Your task to perform on an android device: Toggle the flashlight Image 0: 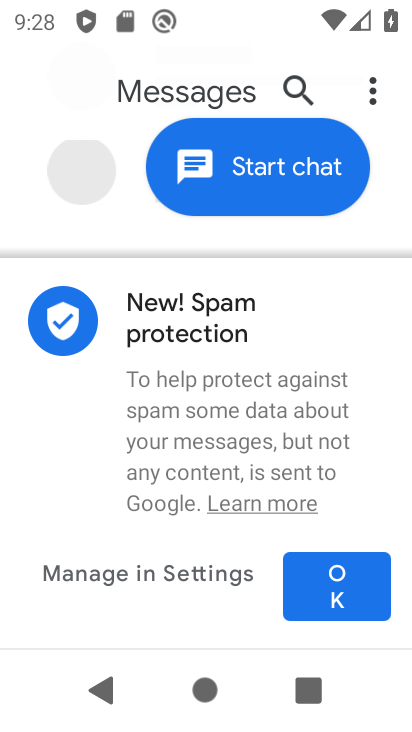
Step 0: press home button
Your task to perform on an android device: Toggle the flashlight Image 1: 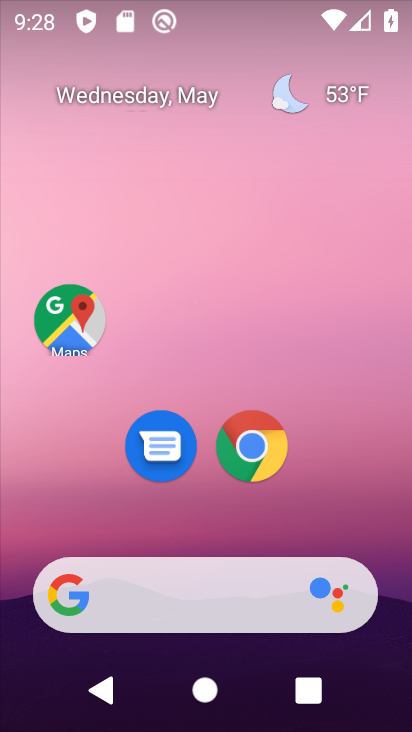
Step 1: drag from (351, 13) to (280, 471)
Your task to perform on an android device: Toggle the flashlight Image 2: 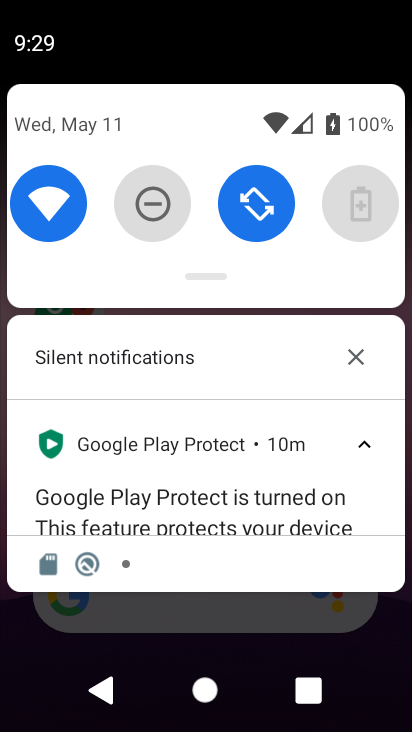
Step 2: drag from (296, 272) to (271, 714)
Your task to perform on an android device: Toggle the flashlight Image 3: 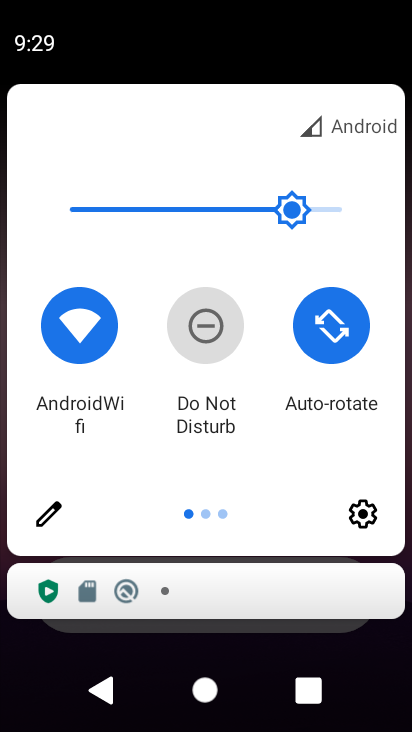
Step 3: click (44, 512)
Your task to perform on an android device: Toggle the flashlight Image 4: 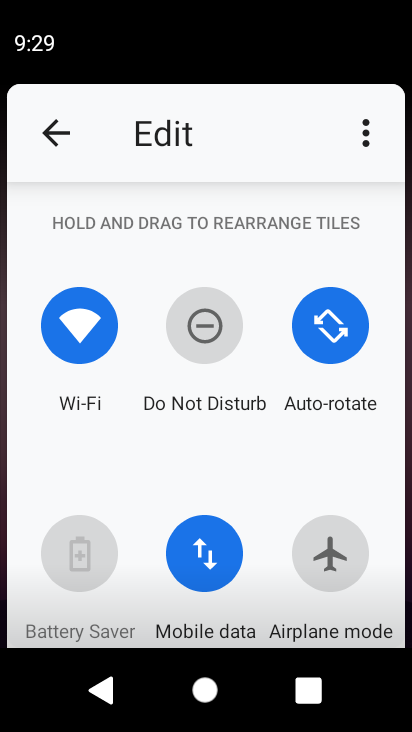
Step 4: task complete